Your task to perform on an android device: turn on data saver in the chrome app Image 0: 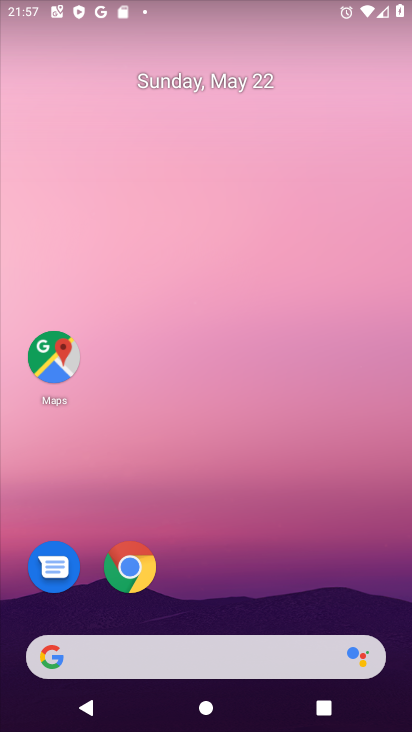
Step 0: drag from (191, 615) to (307, 10)
Your task to perform on an android device: turn on data saver in the chrome app Image 1: 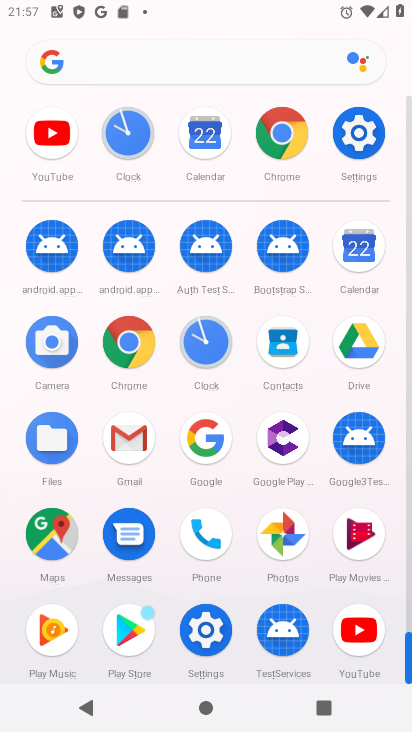
Step 1: click (130, 360)
Your task to perform on an android device: turn on data saver in the chrome app Image 2: 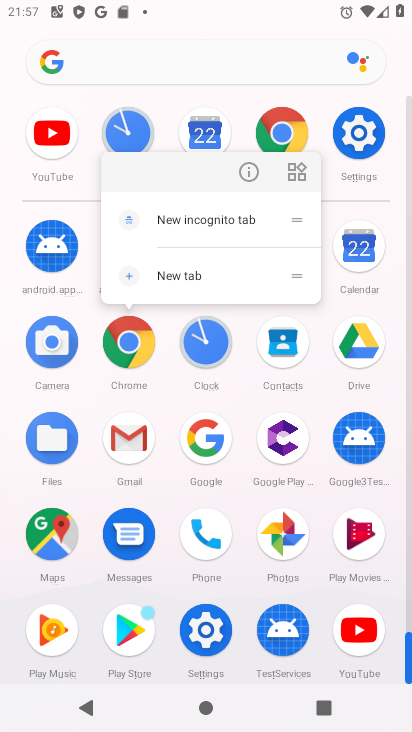
Step 2: click (134, 349)
Your task to perform on an android device: turn on data saver in the chrome app Image 3: 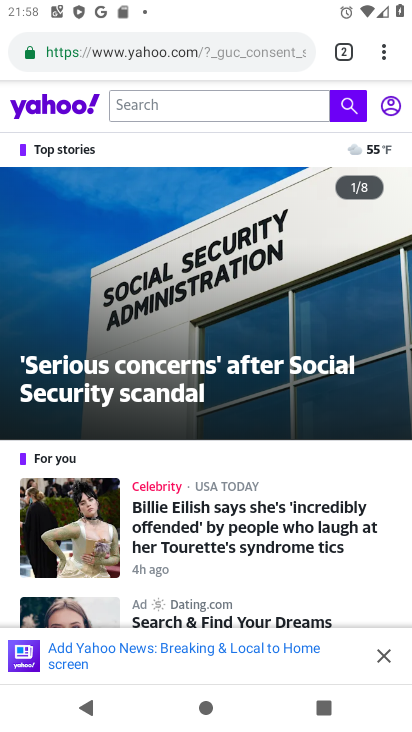
Step 3: click (388, 47)
Your task to perform on an android device: turn on data saver in the chrome app Image 4: 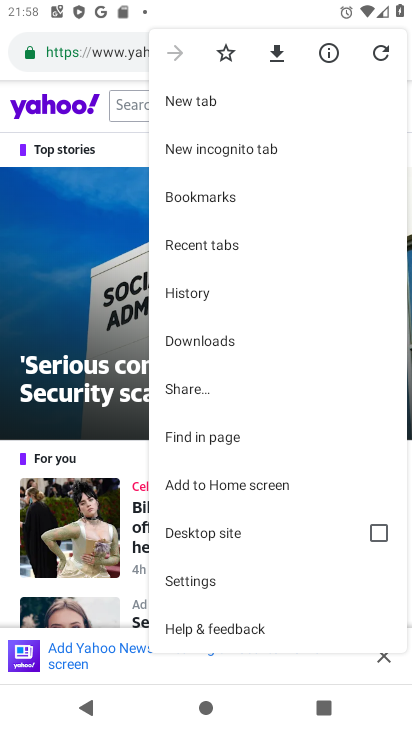
Step 4: click (205, 584)
Your task to perform on an android device: turn on data saver in the chrome app Image 5: 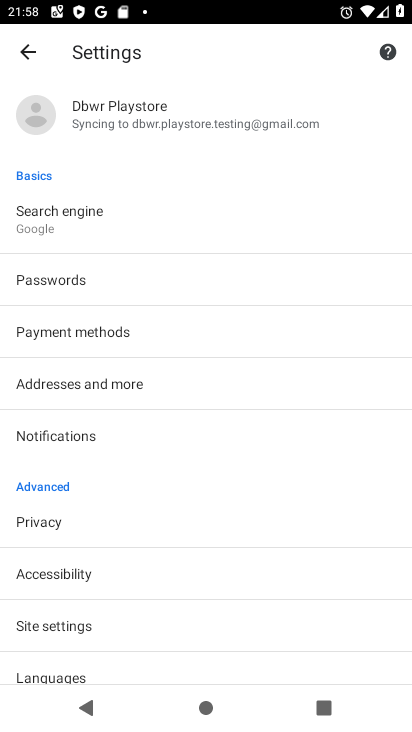
Step 5: drag from (81, 595) to (92, 359)
Your task to perform on an android device: turn on data saver in the chrome app Image 6: 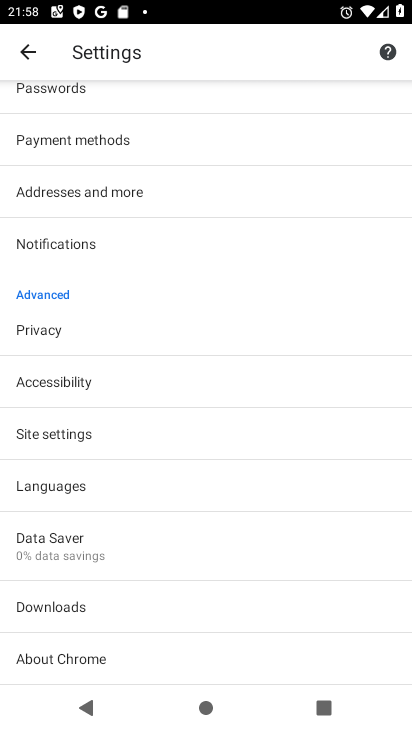
Step 6: click (70, 542)
Your task to perform on an android device: turn on data saver in the chrome app Image 7: 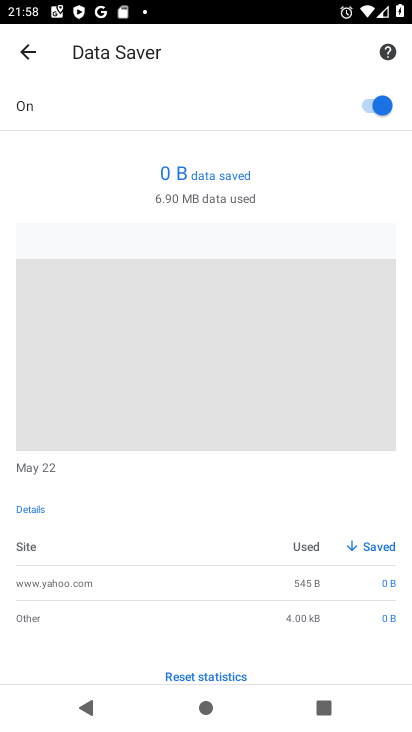
Step 7: task complete